Your task to perform on an android device: turn notification dots on Image 0: 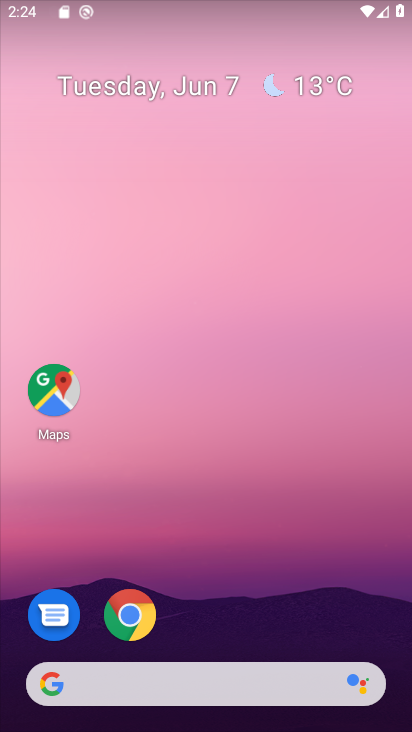
Step 0: drag from (183, 604) to (273, 153)
Your task to perform on an android device: turn notification dots on Image 1: 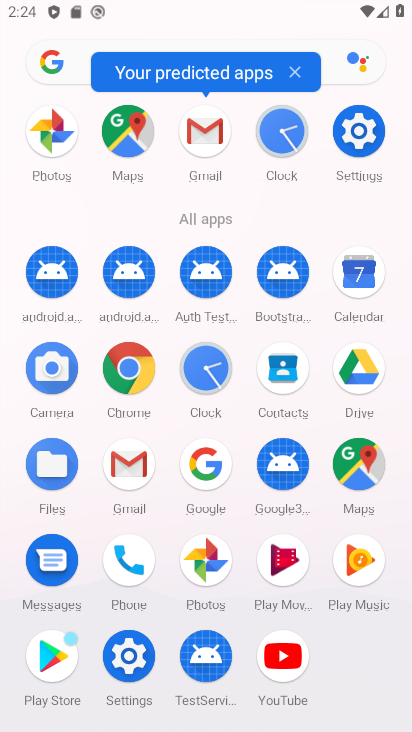
Step 1: click (117, 670)
Your task to perform on an android device: turn notification dots on Image 2: 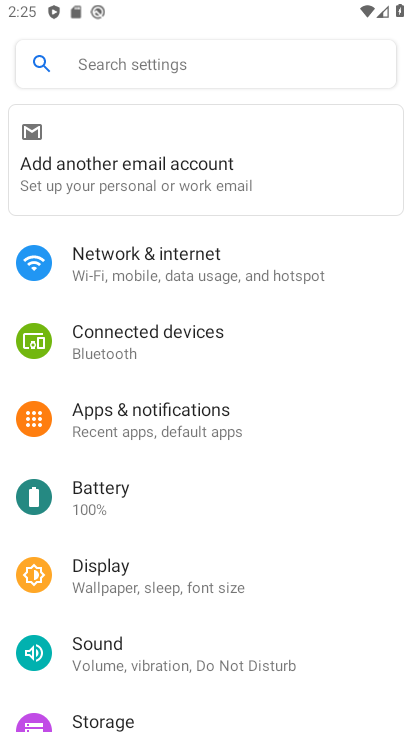
Step 2: click (210, 439)
Your task to perform on an android device: turn notification dots on Image 3: 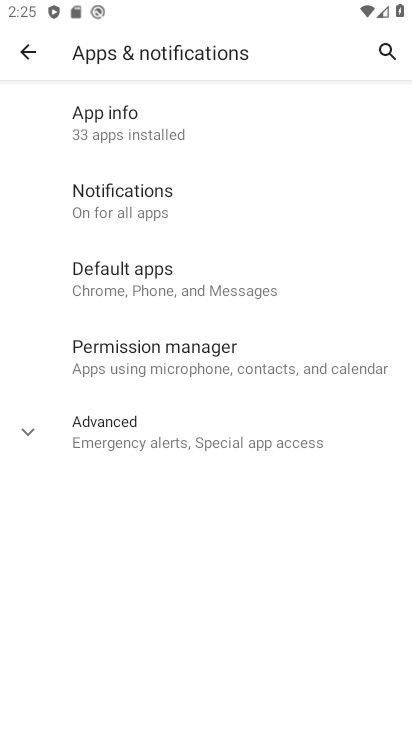
Step 3: click (173, 188)
Your task to perform on an android device: turn notification dots on Image 4: 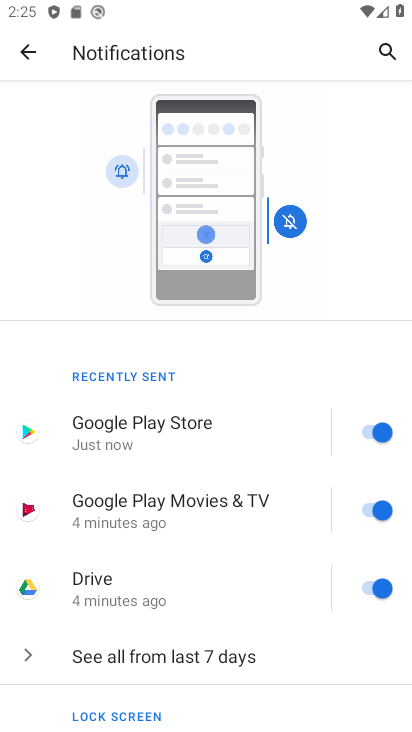
Step 4: drag from (156, 575) to (263, 231)
Your task to perform on an android device: turn notification dots on Image 5: 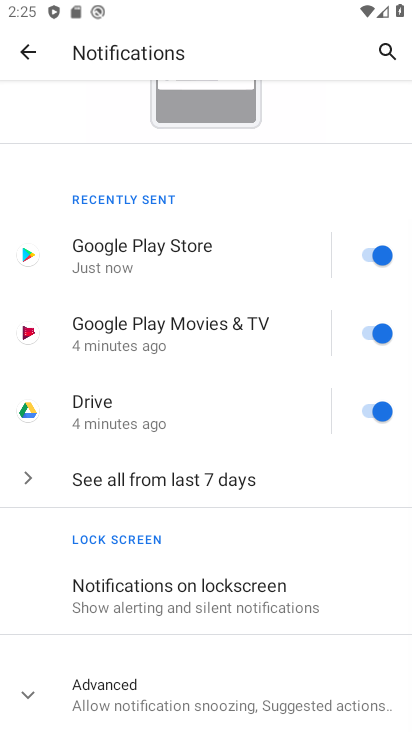
Step 5: click (214, 675)
Your task to perform on an android device: turn notification dots on Image 6: 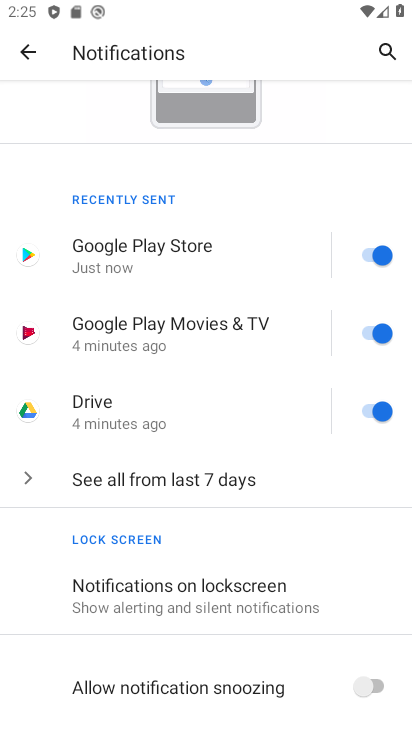
Step 6: task complete